Your task to perform on an android device: Open the map Image 0: 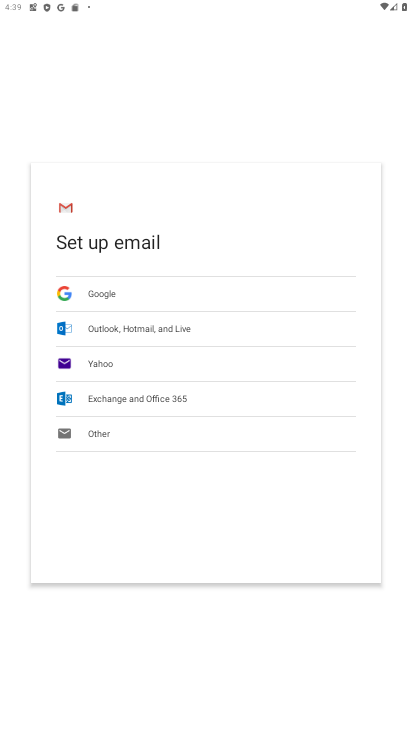
Step 0: press home button
Your task to perform on an android device: Open the map Image 1: 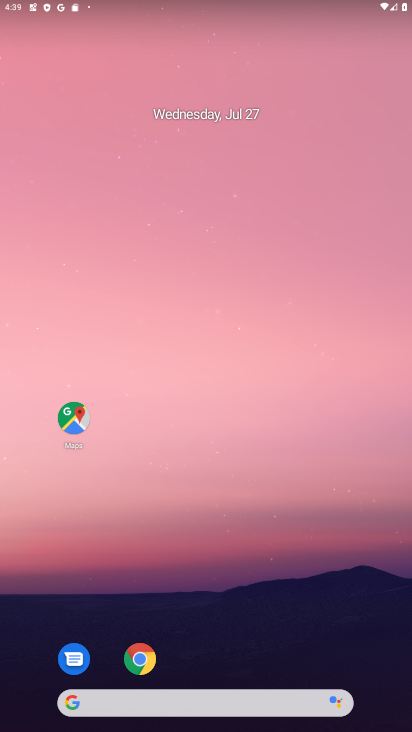
Step 1: click (65, 421)
Your task to perform on an android device: Open the map Image 2: 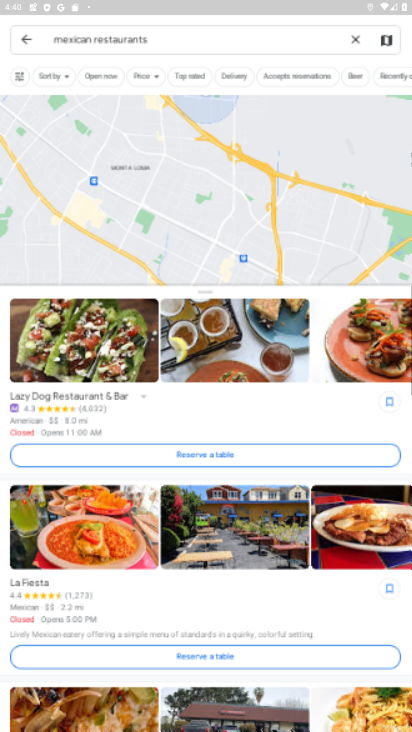
Step 2: task complete